Your task to perform on an android device: When is my next appointment? Image 0: 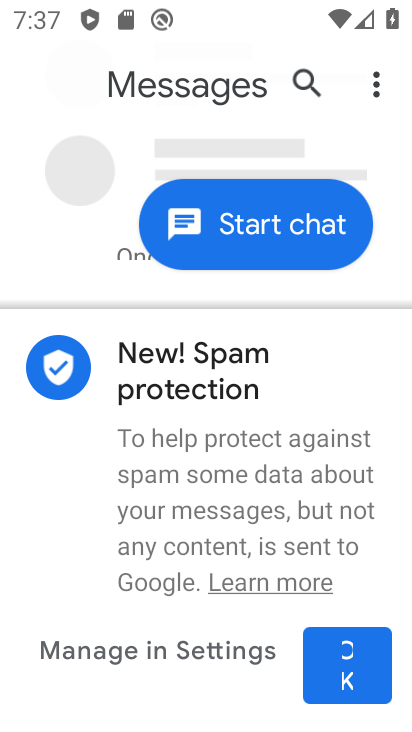
Step 0: press back button
Your task to perform on an android device: When is my next appointment? Image 1: 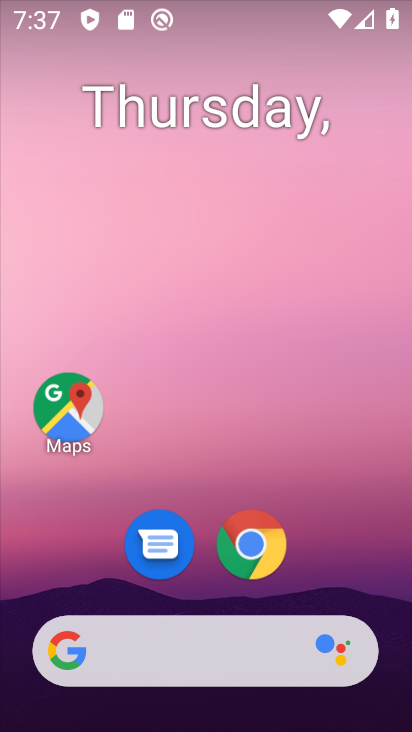
Step 1: drag from (338, 559) to (250, 152)
Your task to perform on an android device: When is my next appointment? Image 2: 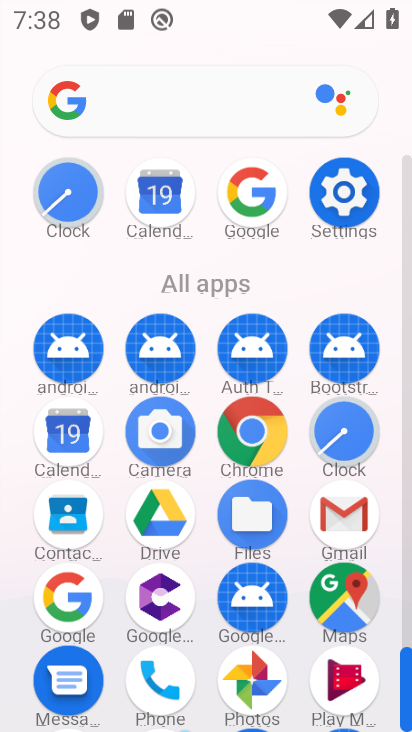
Step 2: click (69, 431)
Your task to perform on an android device: When is my next appointment? Image 3: 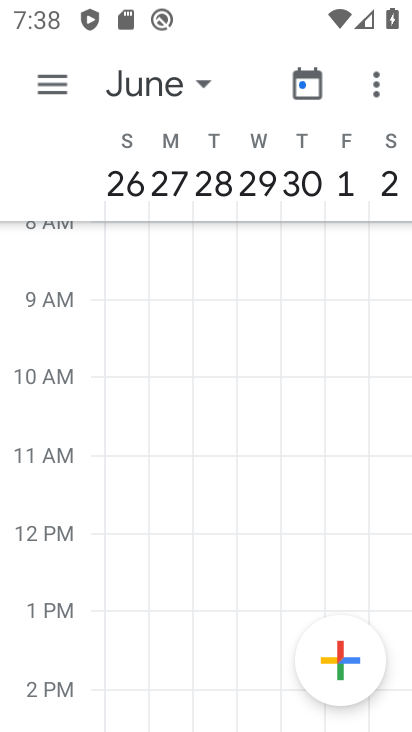
Step 3: click (311, 88)
Your task to perform on an android device: When is my next appointment? Image 4: 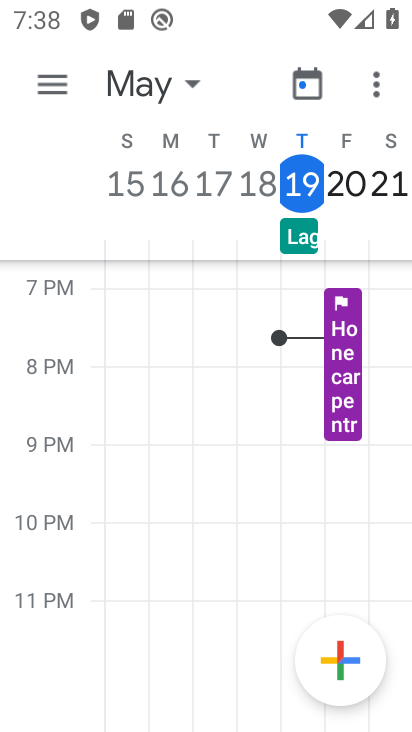
Step 4: click (192, 79)
Your task to perform on an android device: When is my next appointment? Image 5: 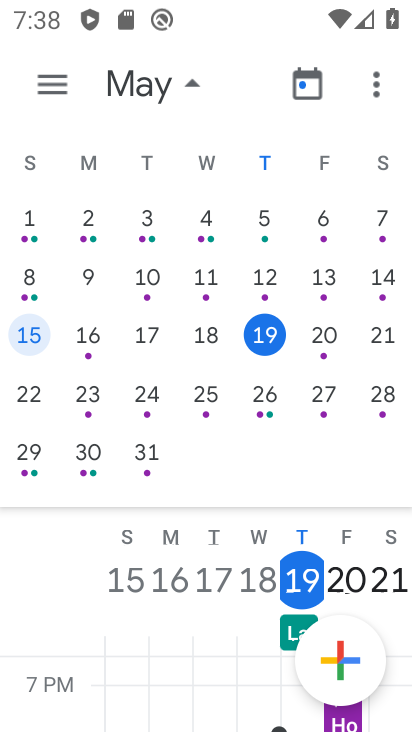
Step 5: click (325, 340)
Your task to perform on an android device: When is my next appointment? Image 6: 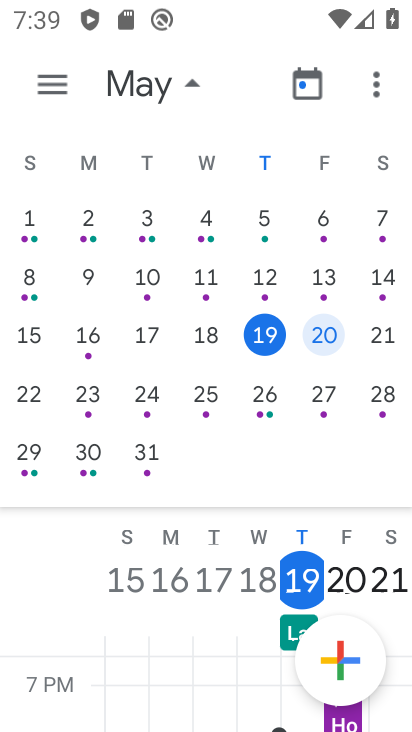
Step 6: click (58, 86)
Your task to perform on an android device: When is my next appointment? Image 7: 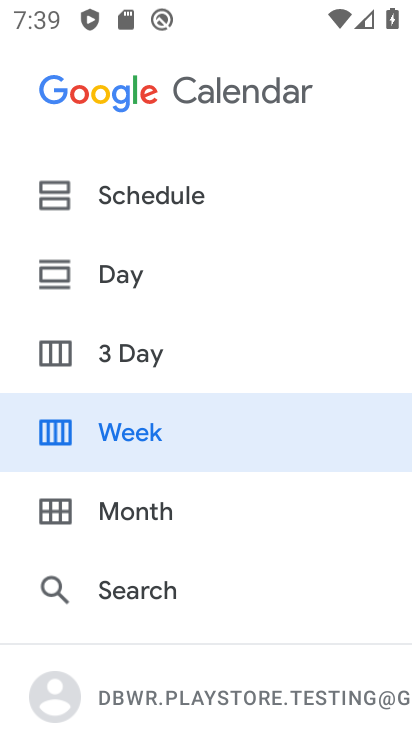
Step 7: click (135, 194)
Your task to perform on an android device: When is my next appointment? Image 8: 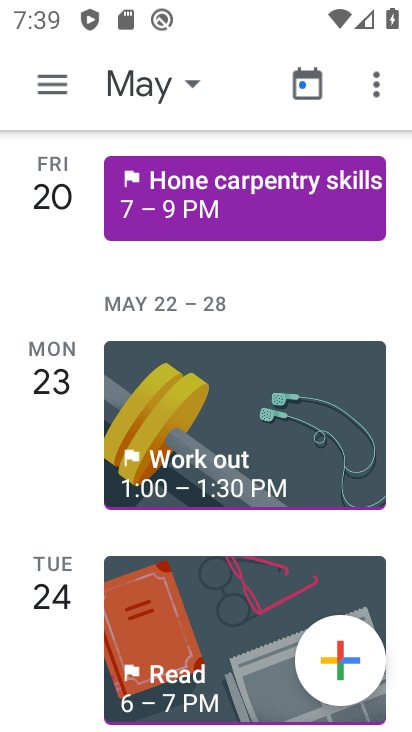
Step 8: task complete